Your task to perform on an android device: Open Google Chrome Image 0: 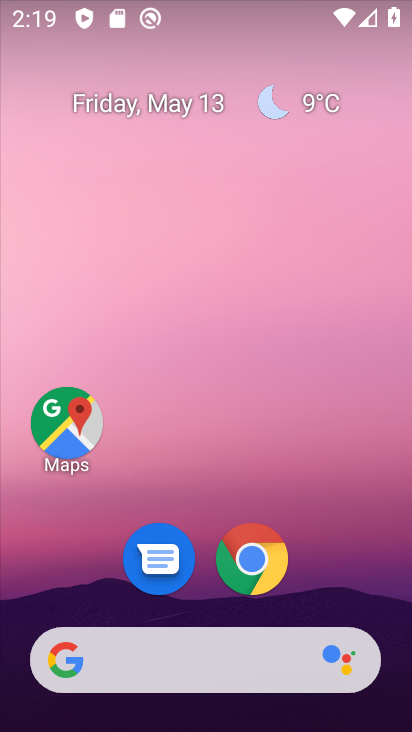
Step 0: click (243, 560)
Your task to perform on an android device: Open Google Chrome Image 1: 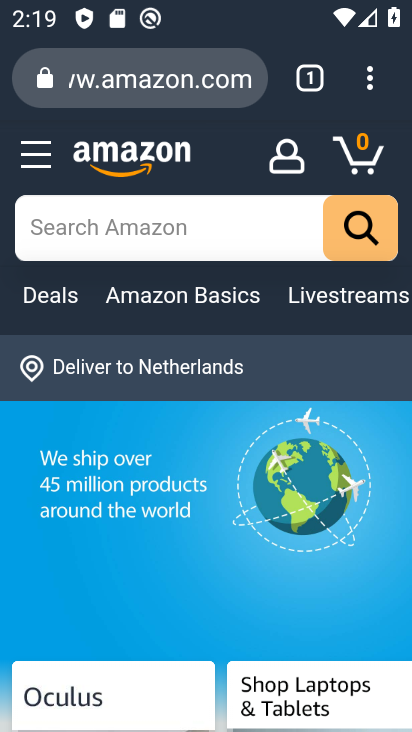
Step 1: task complete